Your task to perform on an android device: open chrome privacy settings Image 0: 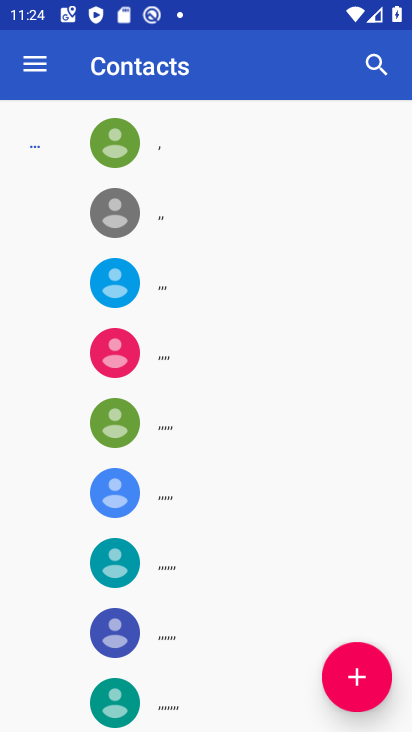
Step 0: press home button
Your task to perform on an android device: open chrome privacy settings Image 1: 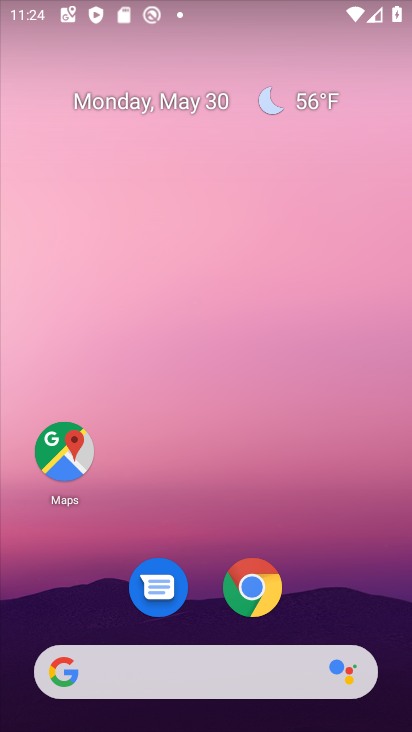
Step 1: click (252, 587)
Your task to perform on an android device: open chrome privacy settings Image 2: 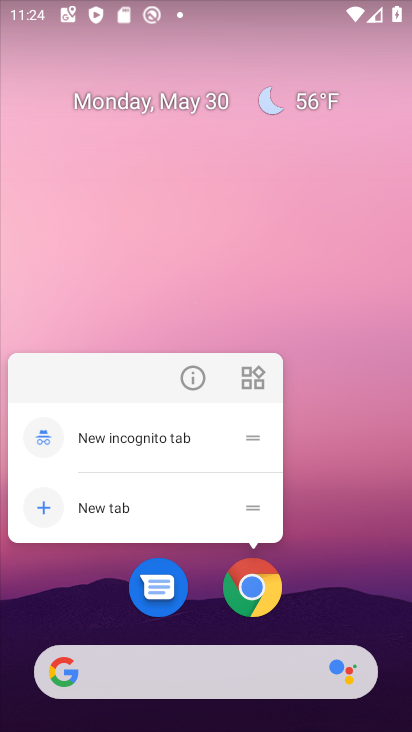
Step 2: click (252, 587)
Your task to perform on an android device: open chrome privacy settings Image 3: 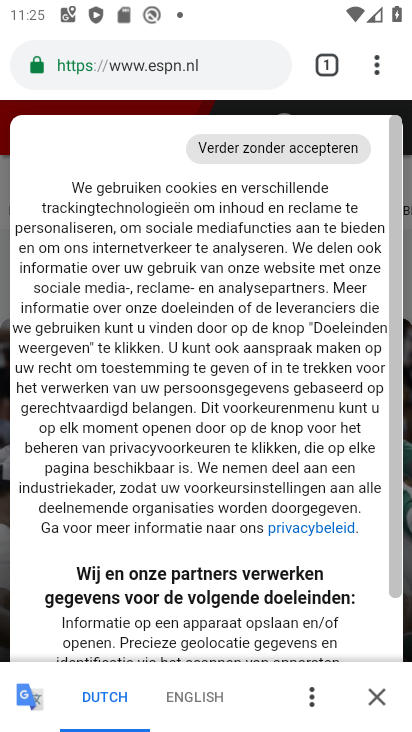
Step 3: click (376, 69)
Your task to perform on an android device: open chrome privacy settings Image 4: 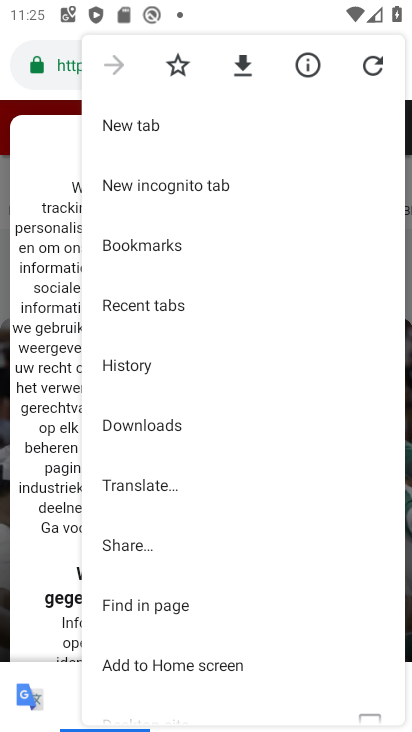
Step 4: drag from (199, 646) to (239, 342)
Your task to perform on an android device: open chrome privacy settings Image 5: 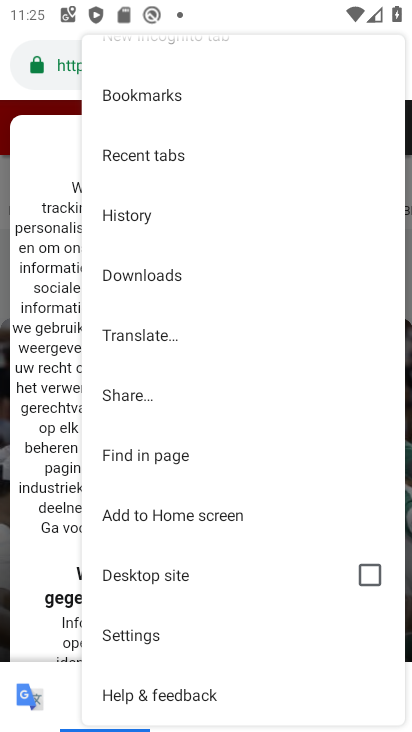
Step 5: click (163, 629)
Your task to perform on an android device: open chrome privacy settings Image 6: 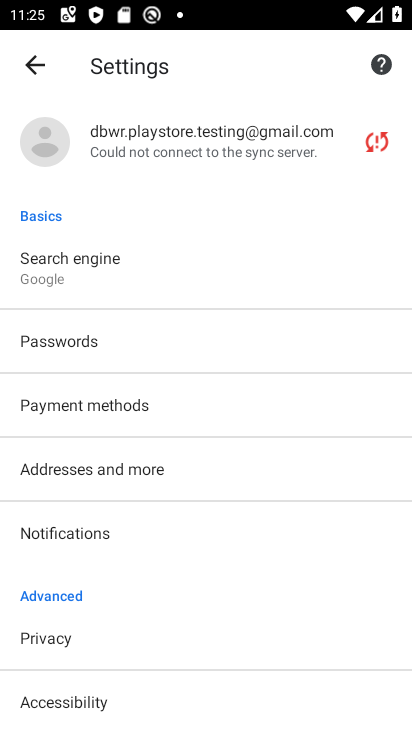
Step 6: click (64, 646)
Your task to perform on an android device: open chrome privacy settings Image 7: 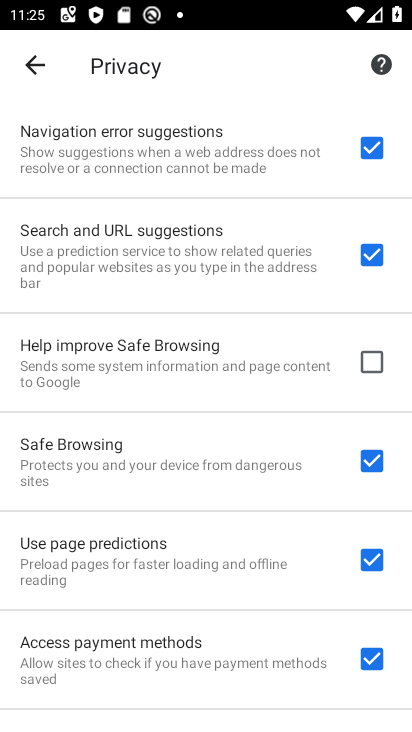
Step 7: task complete